Your task to perform on an android device: allow notifications from all sites in the chrome app Image 0: 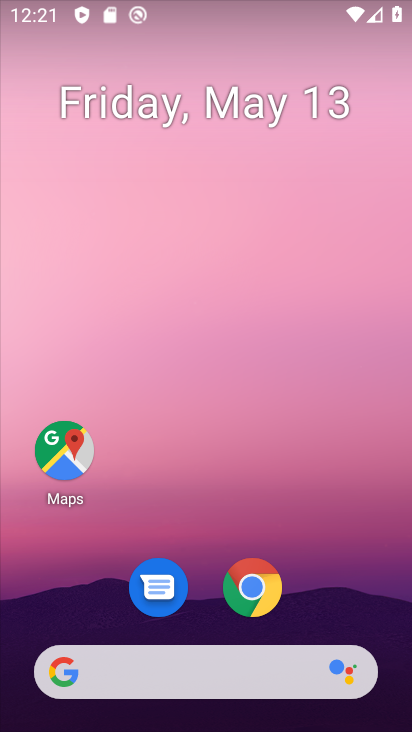
Step 0: drag from (164, 630) to (278, 103)
Your task to perform on an android device: allow notifications from all sites in the chrome app Image 1: 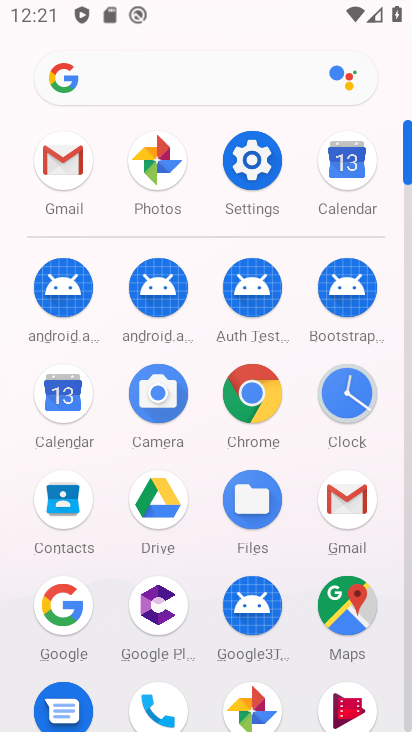
Step 1: click (248, 394)
Your task to perform on an android device: allow notifications from all sites in the chrome app Image 2: 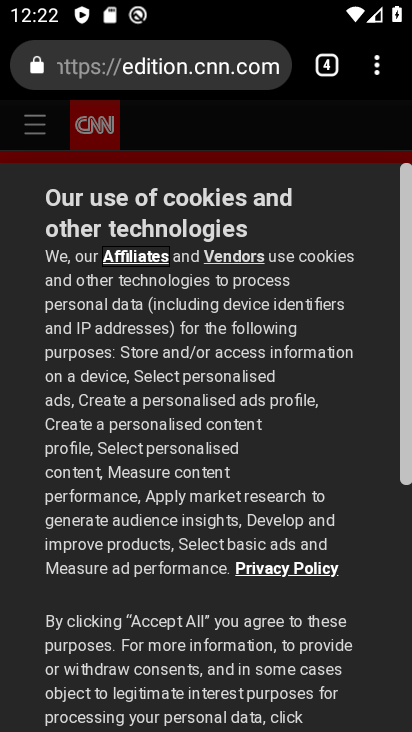
Step 2: drag from (379, 59) to (145, 626)
Your task to perform on an android device: allow notifications from all sites in the chrome app Image 3: 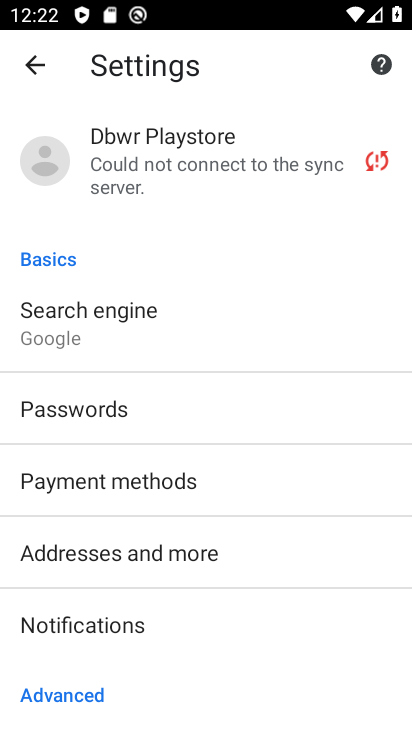
Step 3: click (107, 627)
Your task to perform on an android device: allow notifications from all sites in the chrome app Image 4: 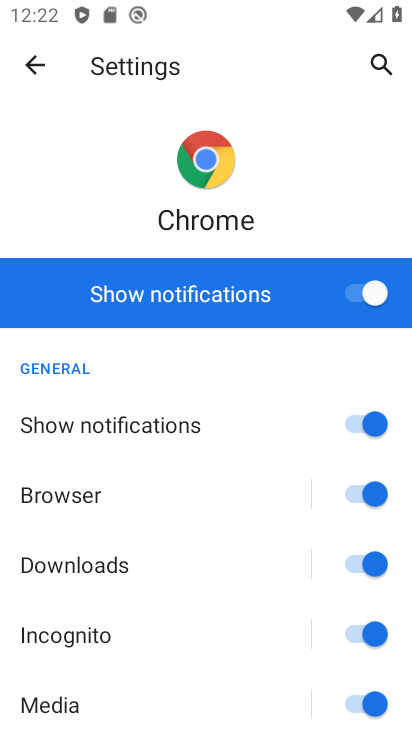
Step 4: task complete